Your task to perform on an android device: add a contact Image 0: 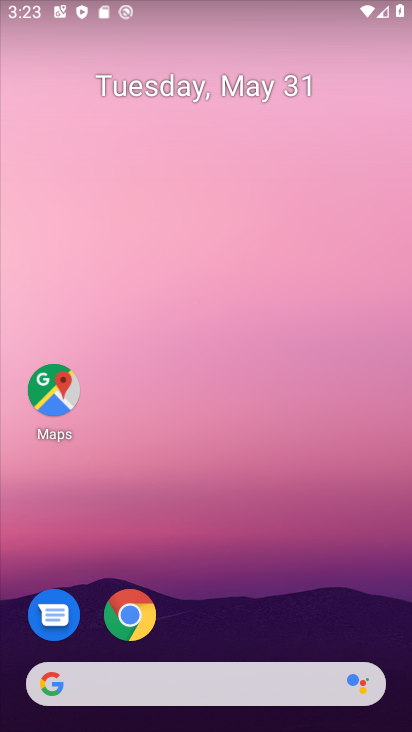
Step 0: drag from (234, 670) to (136, 33)
Your task to perform on an android device: add a contact Image 1: 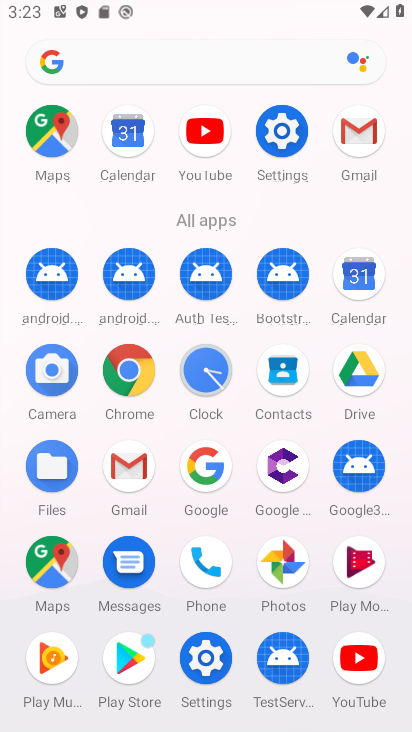
Step 1: drag from (224, 495) to (143, 24)
Your task to perform on an android device: add a contact Image 2: 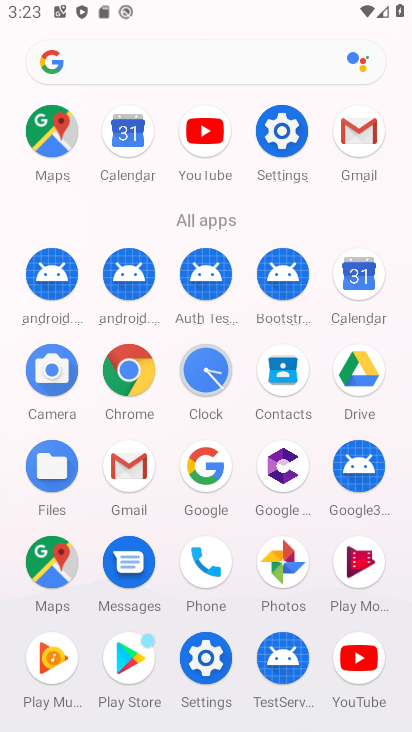
Step 2: click (282, 364)
Your task to perform on an android device: add a contact Image 3: 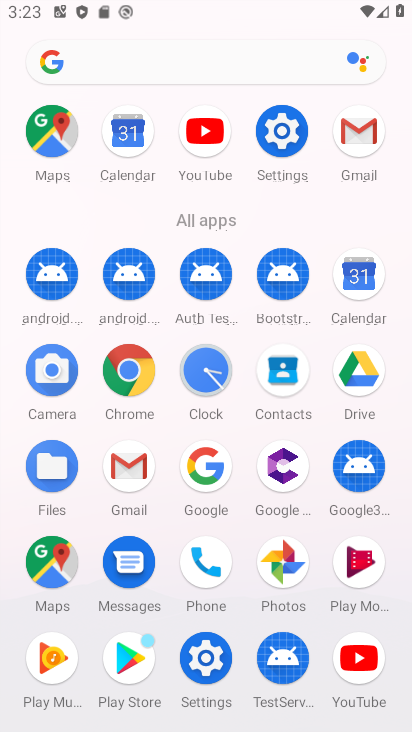
Step 3: click (282, 364)
Your task to perform on an android device: add a contact Image 4: 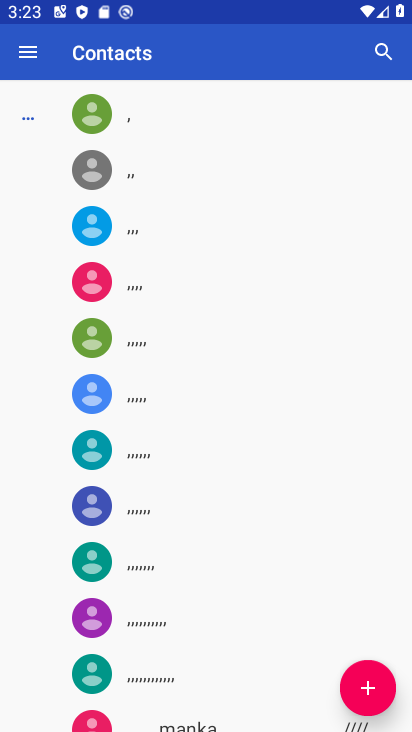
Step 4: click (377, 687)
Your task to perform on an android device: add a contact Image 5: 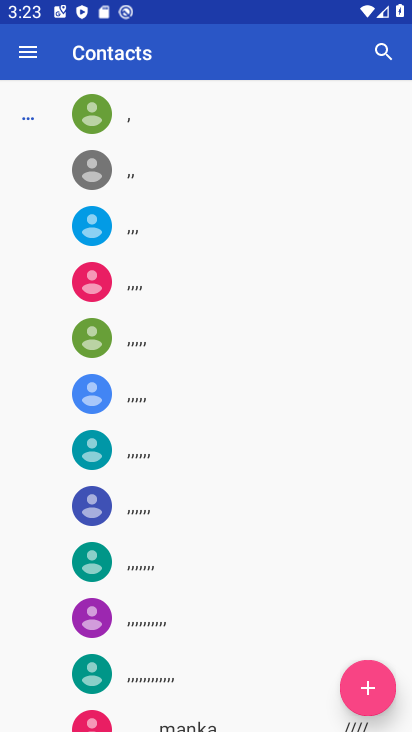
Step 5: click (369, 689)
Your task to perform on an android device: add a contact Image 6: 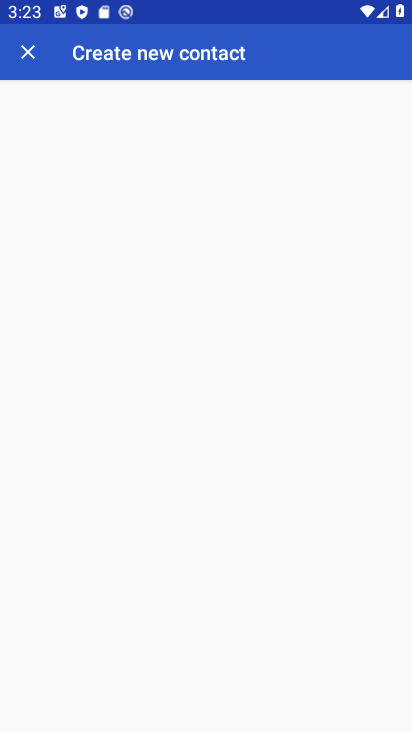
Step 6: click (368, 689)
Your task to perform on an android device: add a contact Image 7: 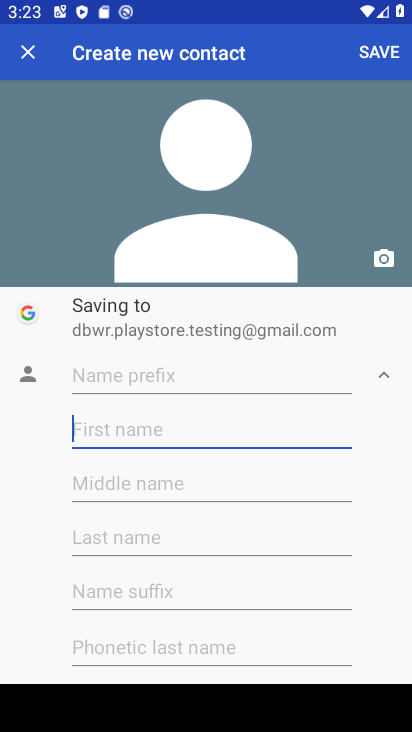
Step 7: type "dskjdnvkjds"
Your task to perform on an android device: add a contact Image 8: 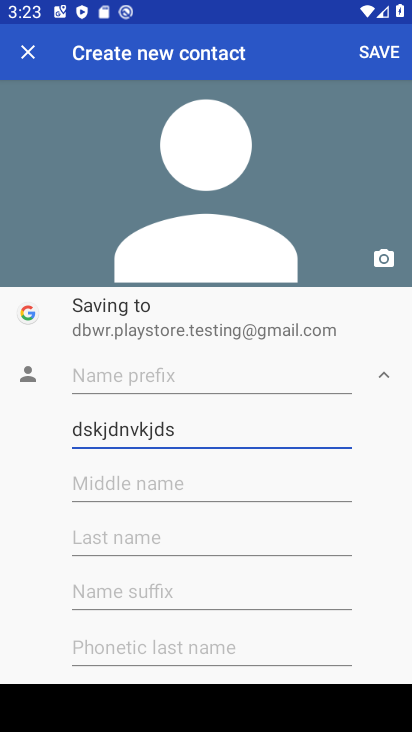
Step 8: click (88, 587)
Your task to perform on an android device: add a contact Image 9: 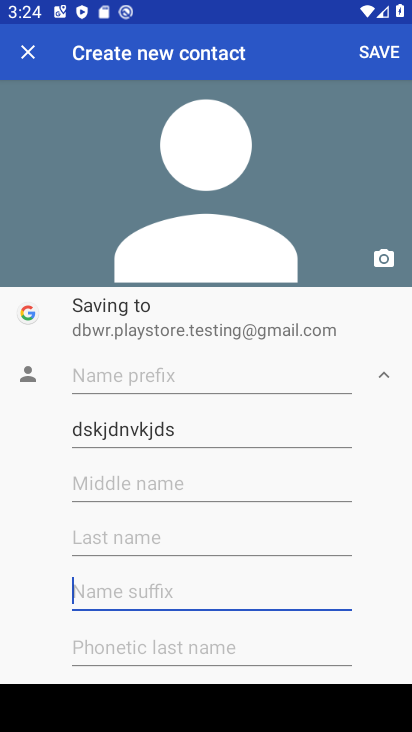
Step 9: click (88, 587)
Your task to perform on an android device: add a contact Image 10: 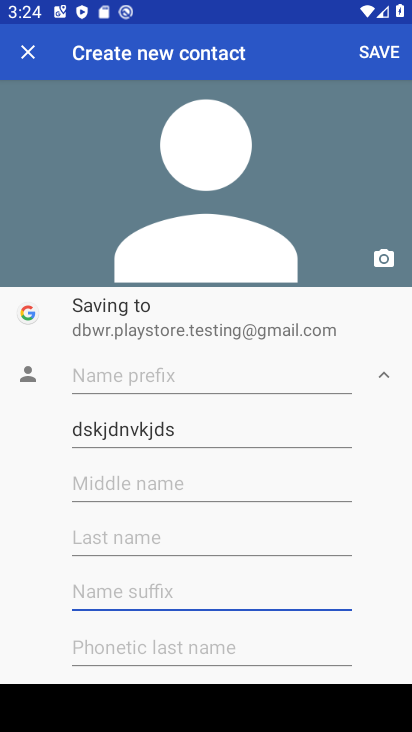
Step 10: click (88, 587)
Your task to perform on an android device: add a contact Image 11: 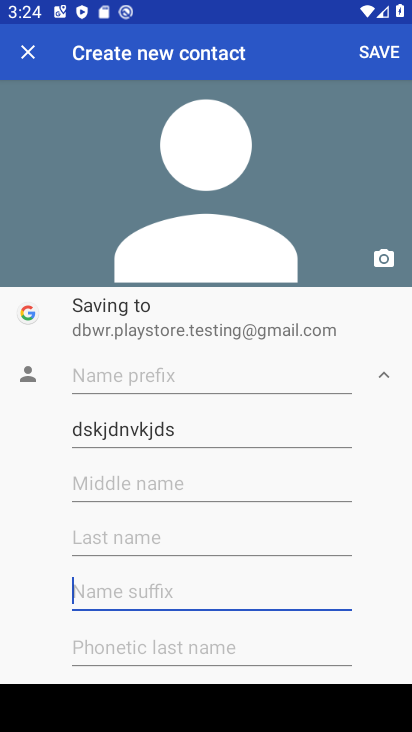
Step 11: click (92, 644)
Your task to perform on an android device: add a contact Image 12: 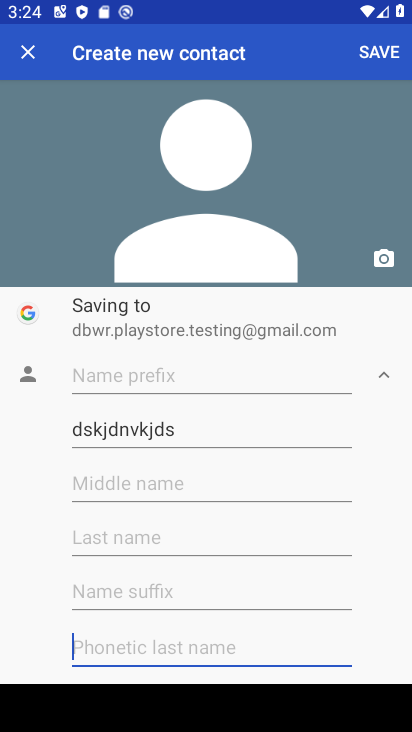
Step 12: click (92, 644)
Your task to perform on an android device: add a contact Image 13: 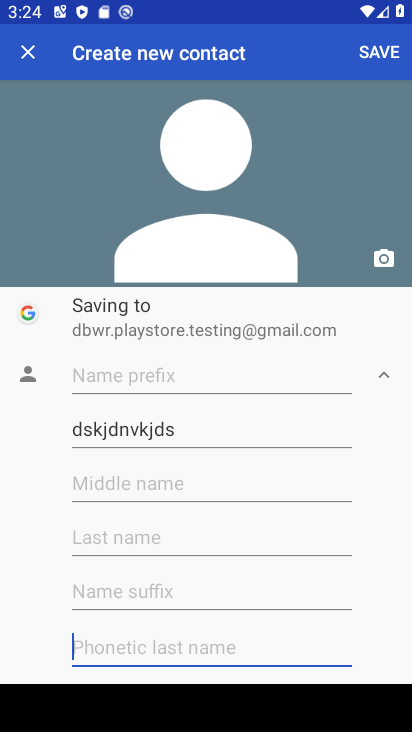
Step 13: drag from (219, 567) to (184, 182)
Your task to perform on an android device: add a contact Image 14: 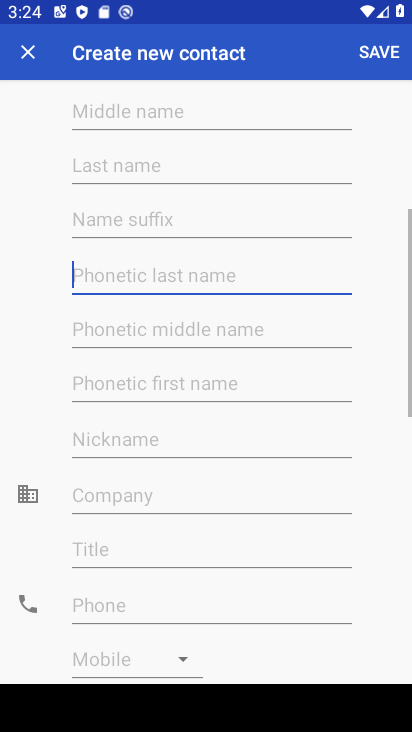
Step 14: drag from (227, 456) to (221, 157)
Your task to perform on an android device: add a contact Image 15: 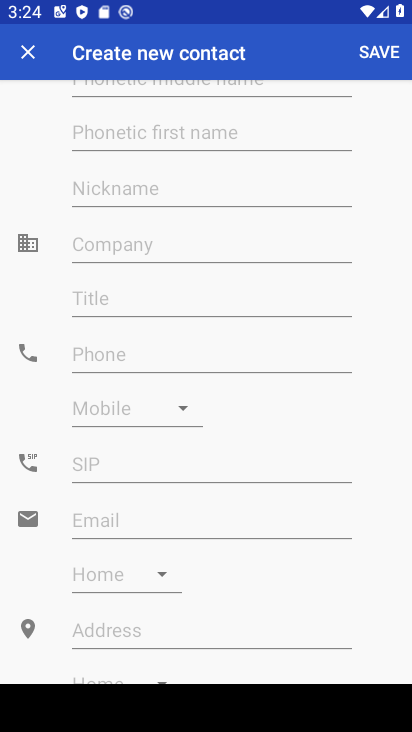
Step 15: click (91, 345)
Your task to perform on an android device: add a contact Image 16: 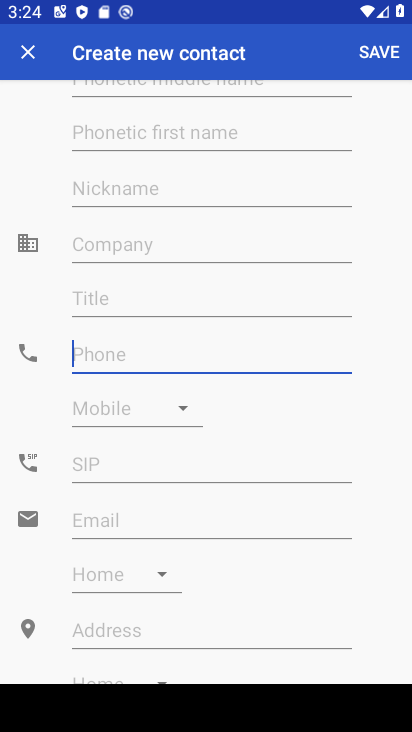
Step 16: click (90, 346)
Your task to perform on an android device: add a contact Image 17: 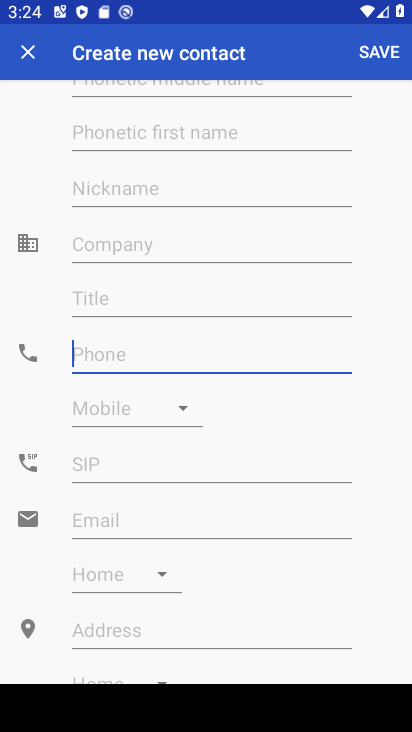
Step 17: click (90, 346)
Your task to perform on an android device: add a contact Image 18: 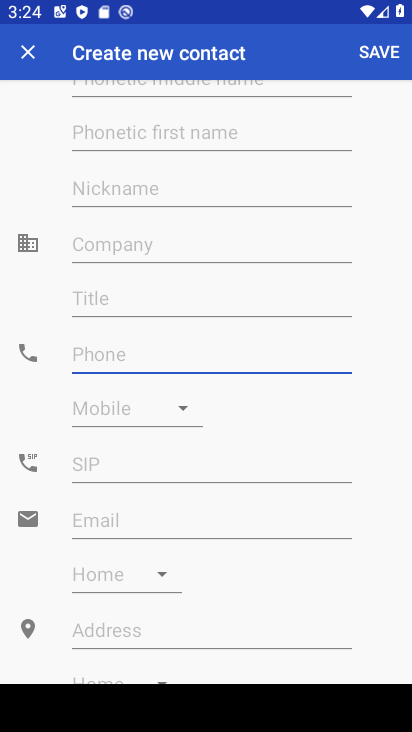
Step 18: type "876827298287"
Your task to perform on an android device: add a contact Image 19: 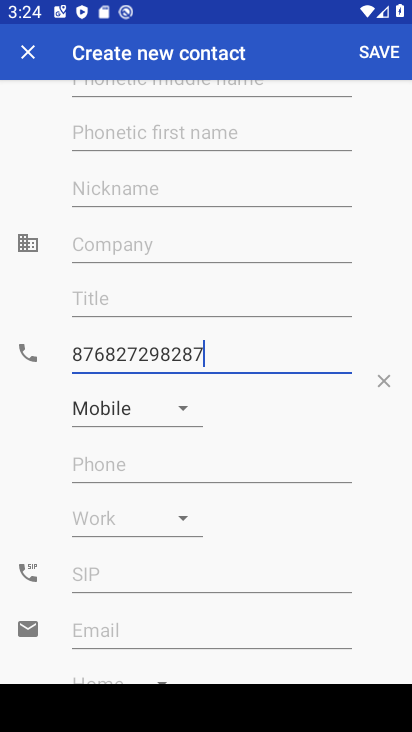
Step 19: click (377, 50)
Your task to perform on an android device: add a contact Image 20: 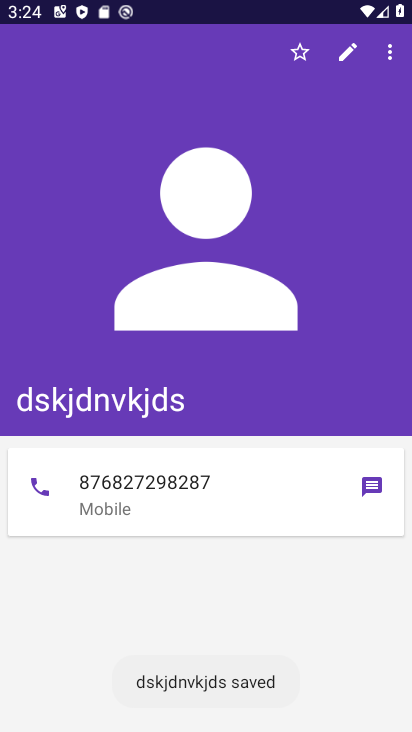
Step 20: click (377, 50)
Your task to perform on an android device: add a contact Image 21: 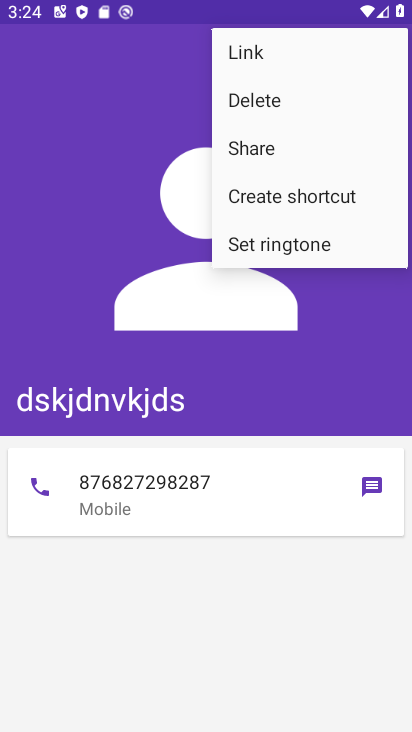
Step 21: click (313, 354)
Your task to perform on an android device: add a contact Image 22: 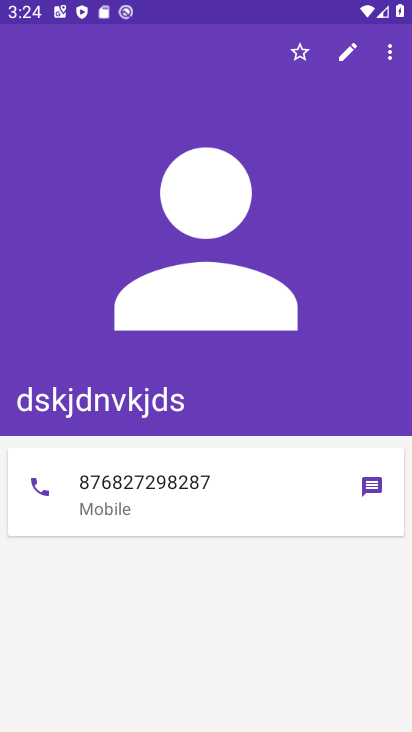
Step 22: click (313, 354)
Your task to perform on an android device: add a contact Image 23: 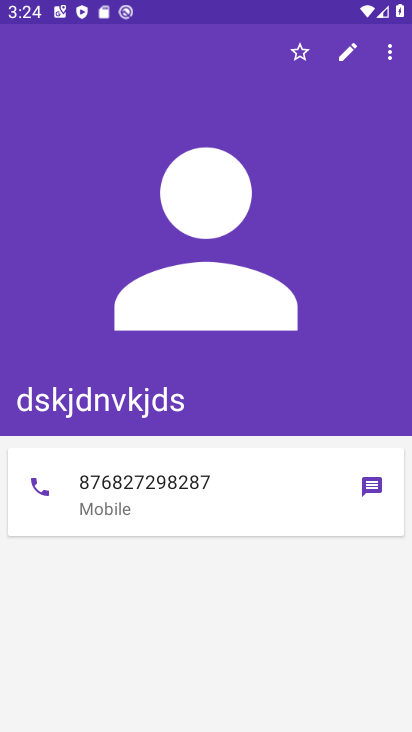
Step 23: click (308, 351)
Your task to perform on an android device: add a contact Image 24: 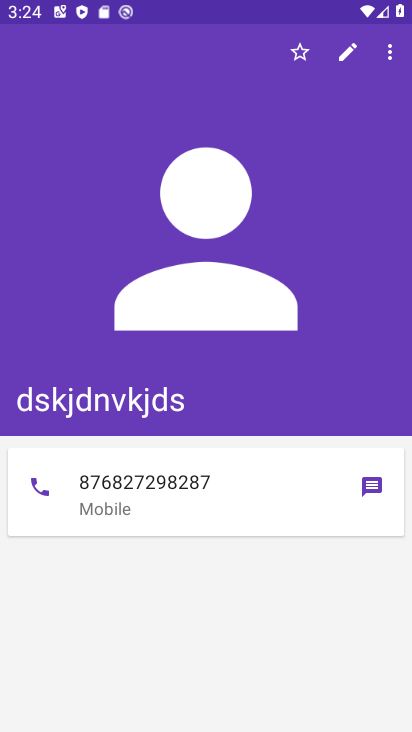
Step 24: task complete